Your task to perform on an android device: What is the recent news? Image 0: 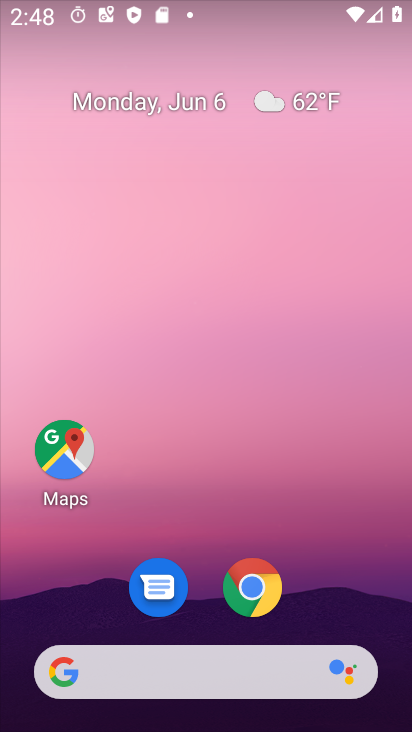
Step 0: drag from (327, 447) to (201, 29)
Your task to perform on an android device: What is the recent news? Image 1: 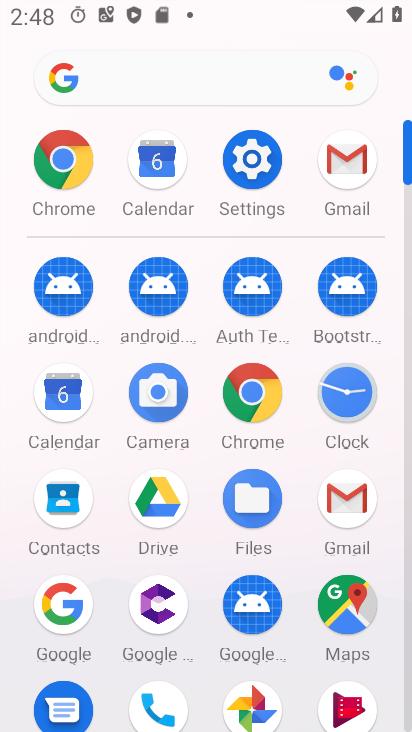
Step 1: drag from (14, 587) to (27, 288)
Your task to perform on an android device: What is the recent news? Image 2: 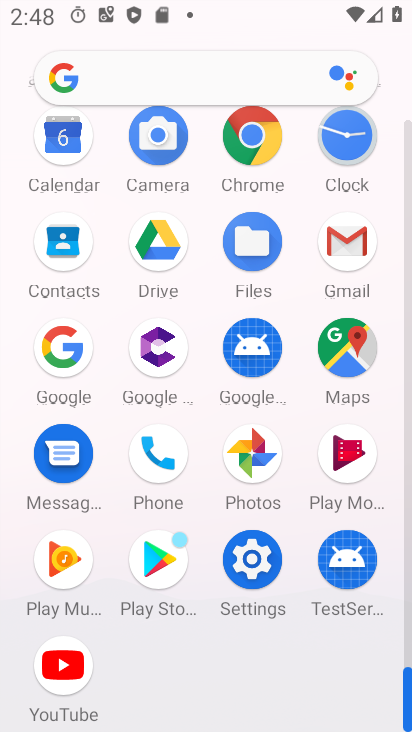
Step 2: click (253, 130)
Your task to perform on an android device: What is the recent news? Image 3: 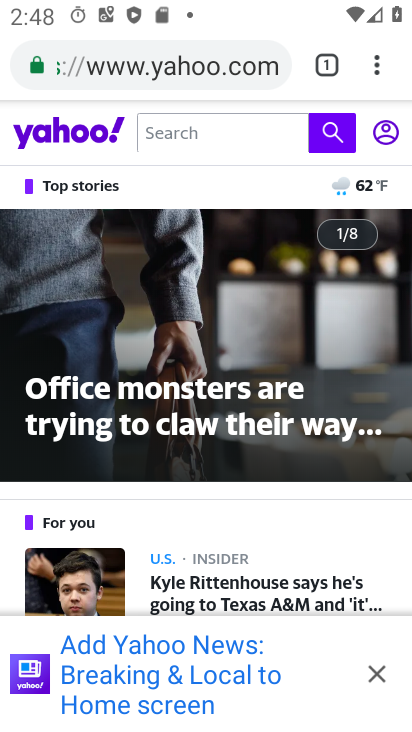
Step 3: click (175, 48)
Your task to perform on an android device: What is the recent news? Image 4: 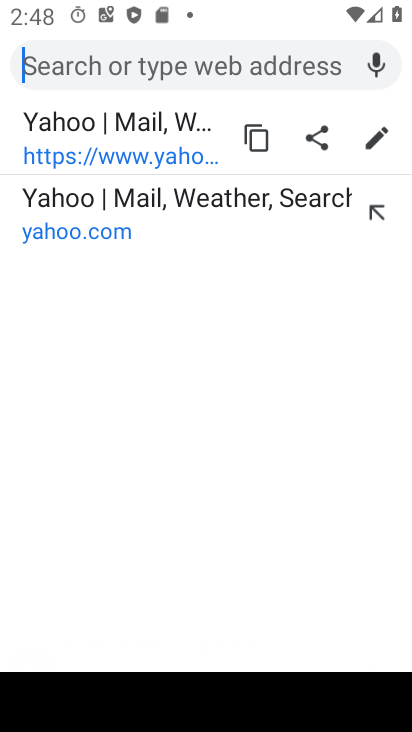
Step 4: type "What is the recent news?"
Your task to perform on an android device: What is the recent news? Image 5: 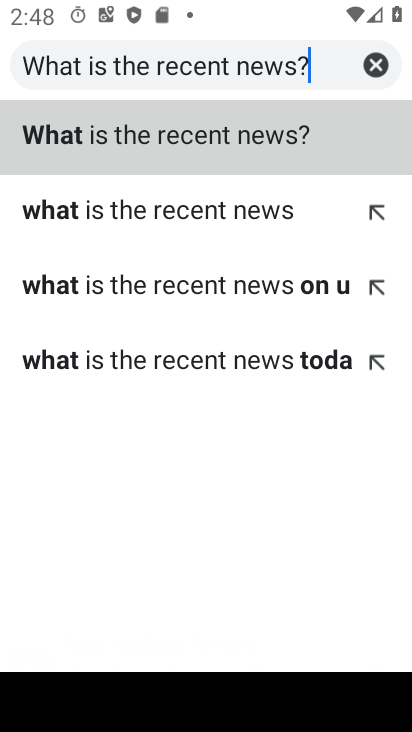
Step 5: type ""
Your task to perform on an android device: What is the recent news? Image 6: 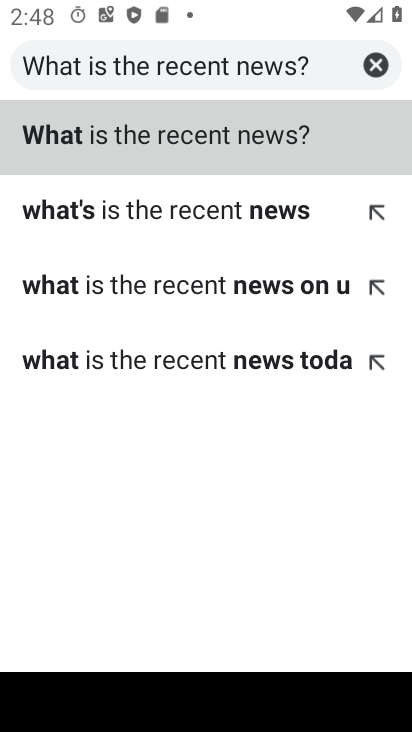
Step 6: click (260, 135)
Your task to perform on an android device: What is the recent news? Image 7: 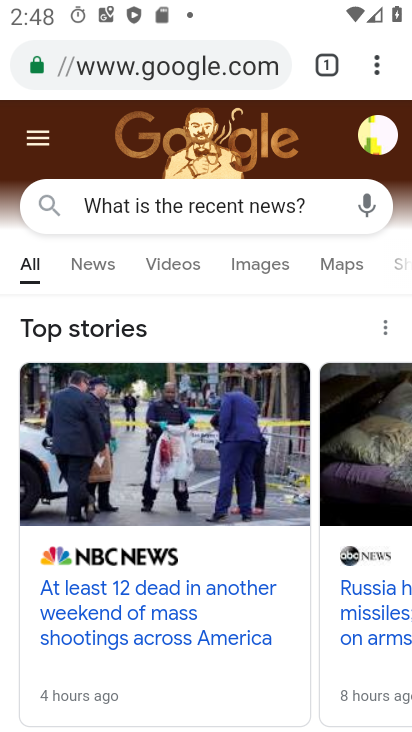
Step 7: drag from (293, 457) to (14, 464)
Your task to perform on an android device: What is the recent news? Image 8: 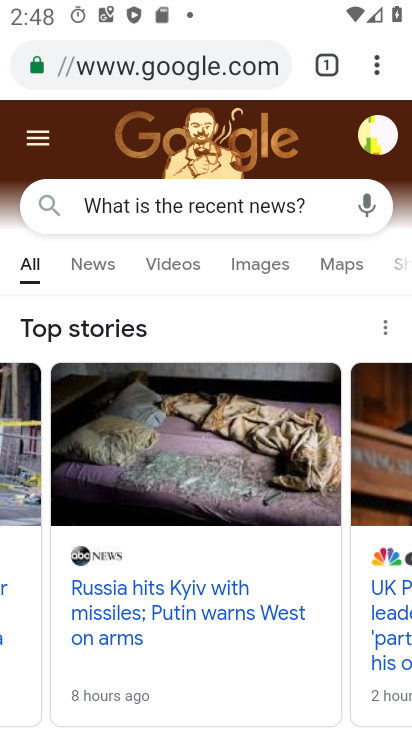
Step 8: drag from (319, 427) to (8, 437)
Your task to perform on an android device: What is the recent news? Image 9: 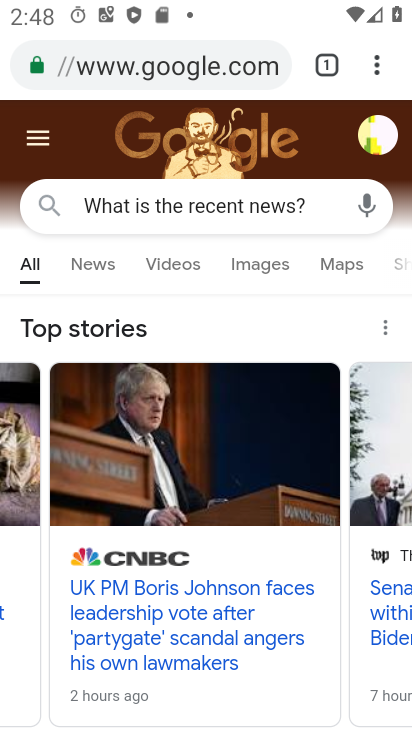
Step 9: click (65, 445)
Your task to perform on an android device: What is the recent news? Image 10: 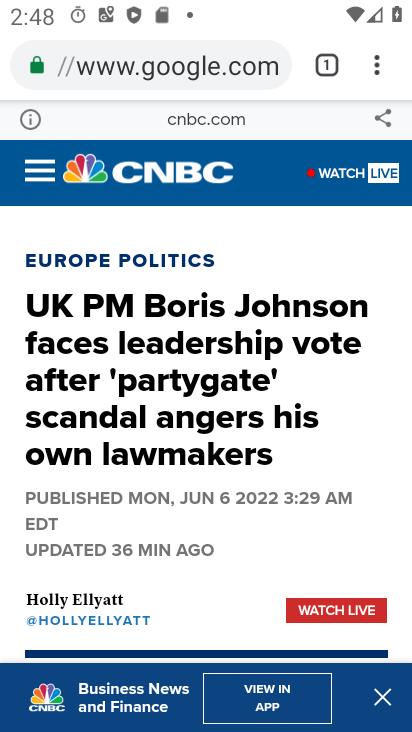
Step 10: task complete